Your task to perform on an android device: turn off translation in the chrome app Image 0: 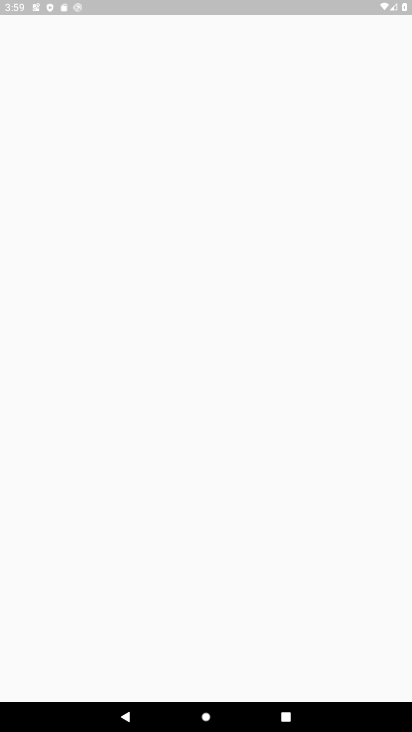
Step 0: press home button
Your task to perform on an android device: turn off translation in the chrome app Image 1: 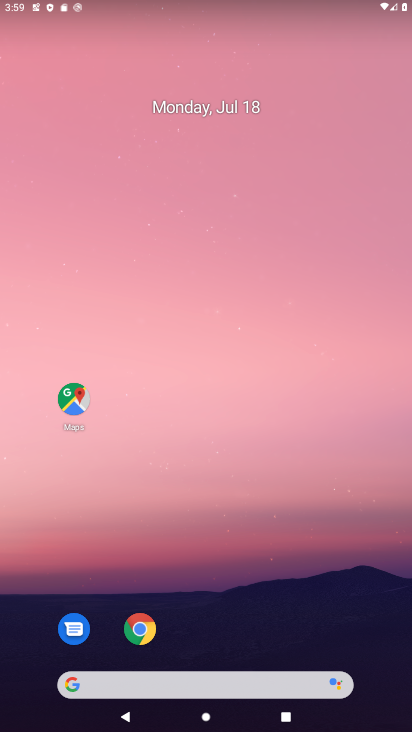
Step 1: click (140, 628)
Your task to perform on an android device: turn off translation in the chrome app Image 2: 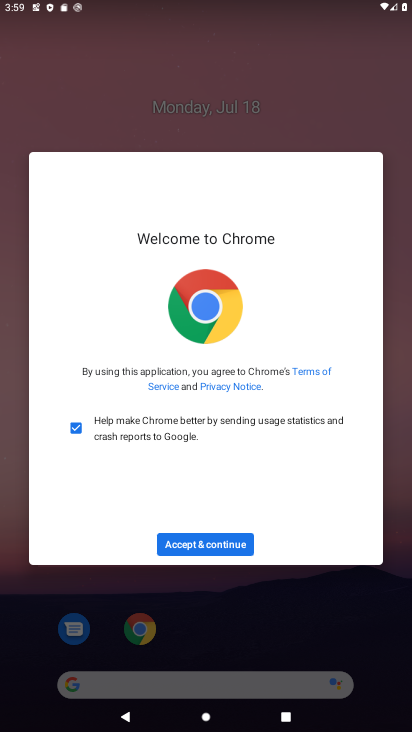
Step 2: click (228, 549)
Your task to perform on an android device: turn off translation in the chrome app Image 3: 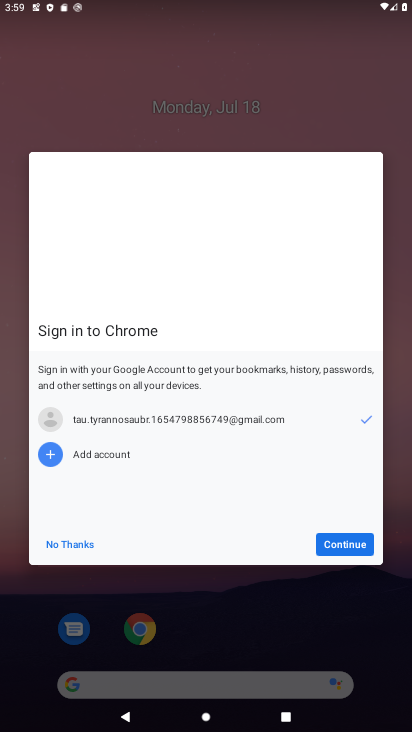
Step 3: click (344, 538)
Your task to perform on an android device: turn off translation in the chrome app Image 4: 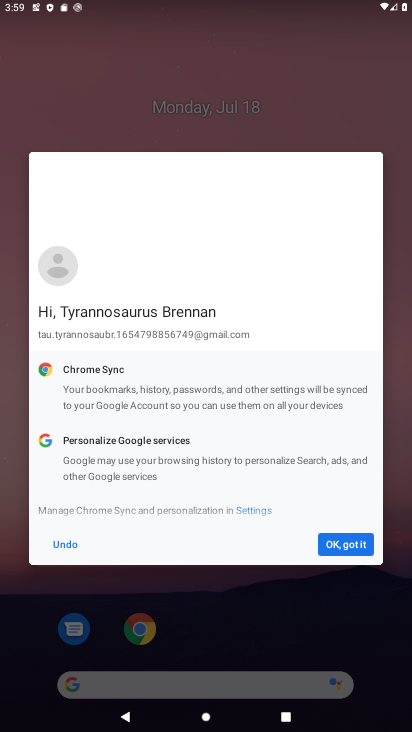
Step 4: click (343, 544)
Your task to perform on an android device: turn off translation in the chrome app Image 5: 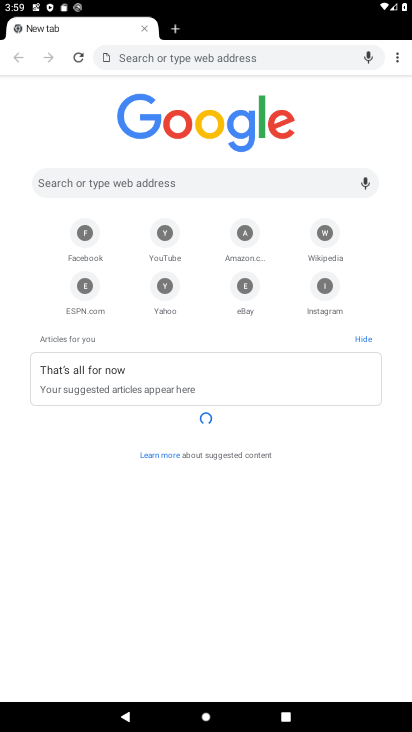
Step 5: click (400, 53)
Your task to perform on an android device: turn off translation in the chrome app Image 6: 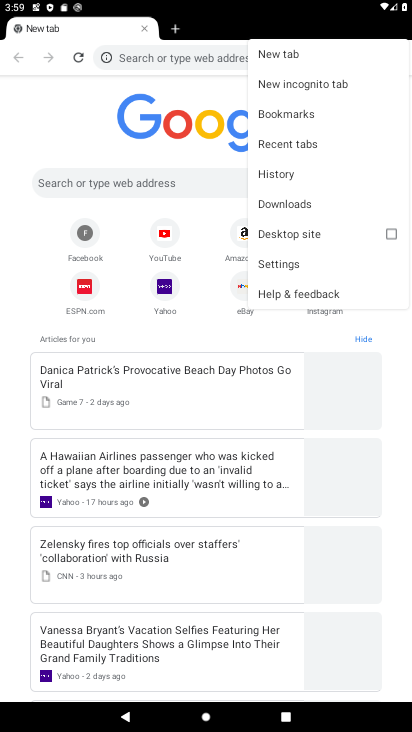
Step 6: click (313, 262)
Your task to perform on an android device: turn off translation in the chrome app Image 7: 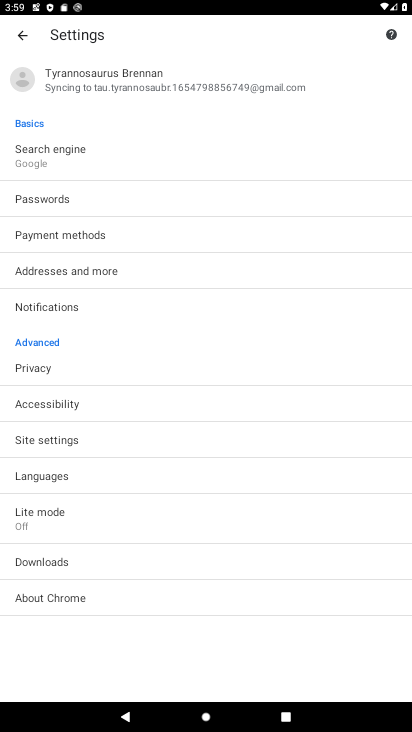
Step 7: click (75, 472)
Your task to perform on an android device: turn off translation in the chrome app Image 8: 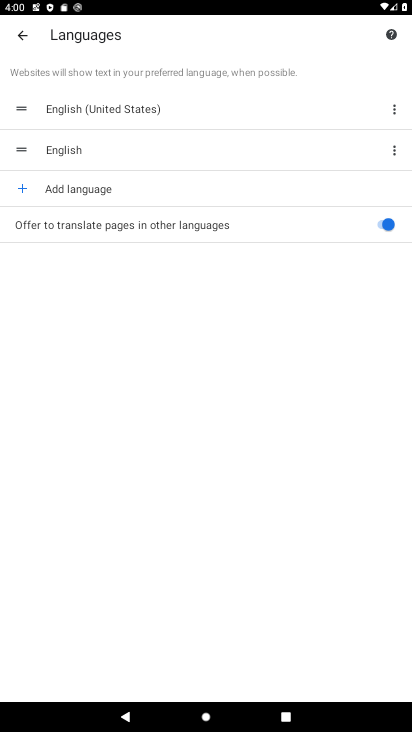
Step 8: click (381, 215)
Your task to perform on an android device: turn off translation in the chrome app Image 9: 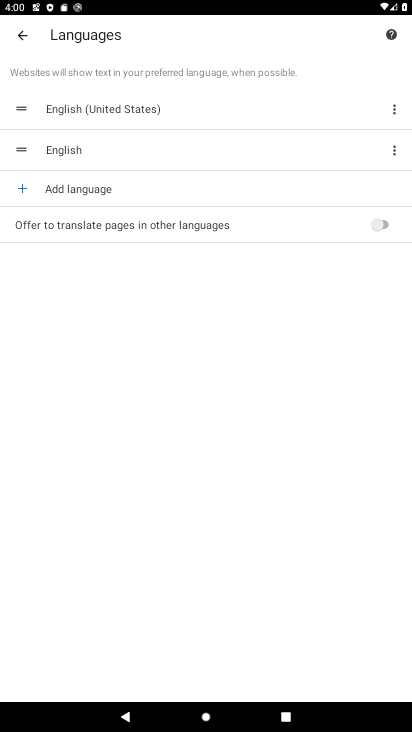
Step 9: task complete